Your task to perform on an android device: toggle location history Image 0: 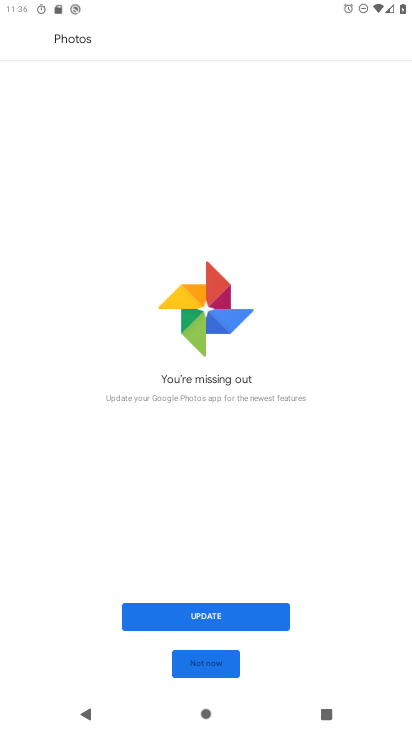
Step 0: press home button
Your task to perform on an android device: toggle location history Image 1: 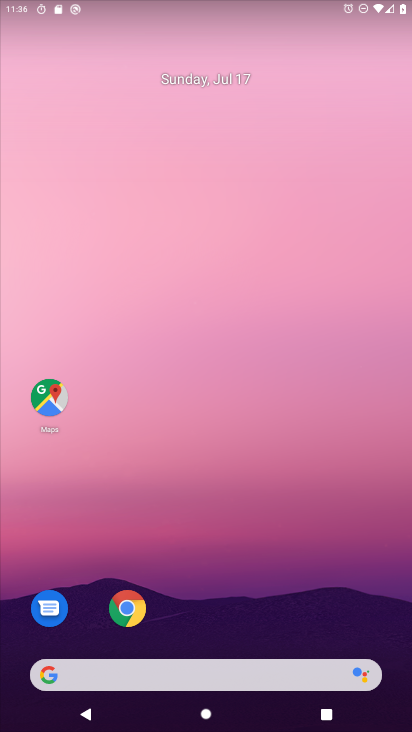
Step 1: drag from (248, 643) to (220, 50)
Your task to perform on an android device: toggle location history Image 2: 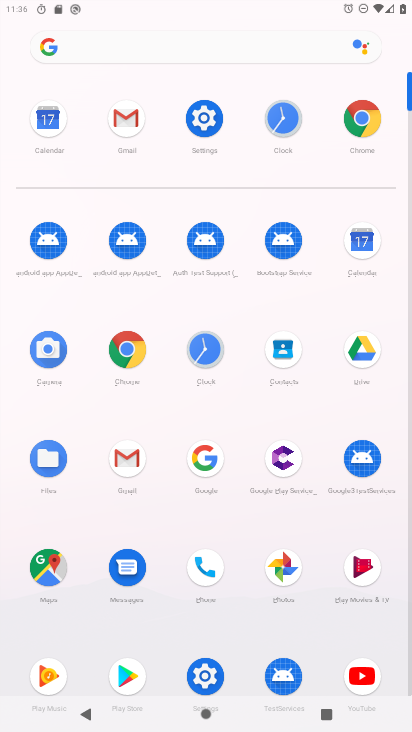
Step 2: click (204, 130)
Your task to perform on an android device: toggle location history Image 3: 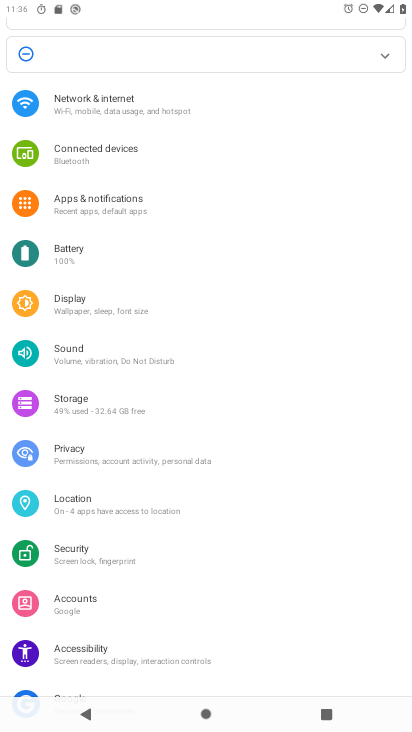
Step 3: click (129, 506)
Your task to perform on an android device: toggle location history Image 4: 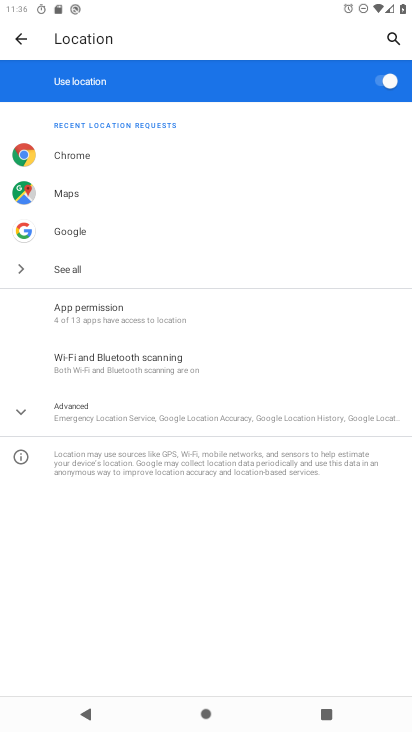
Step 4: click (85, 409)
Your task to perform on an android device: toggle location history Image 5: 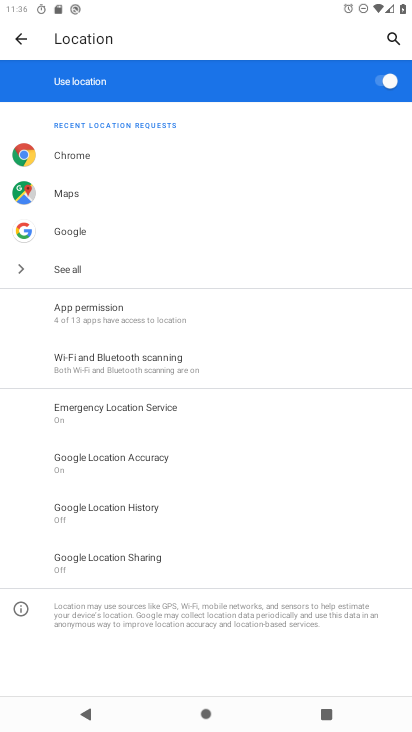
Step 5: click (107, 510)
Your task to perform on an android device: toggle location history Image 6: 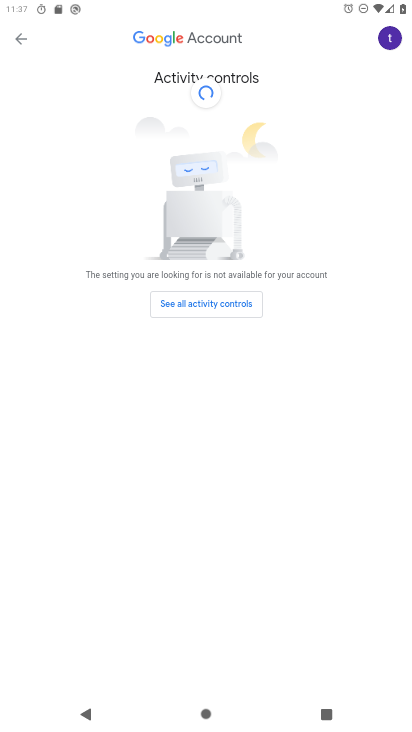
Step 6: click (193, 301)
Your task to perform on an android device: toggle location history Image 7: 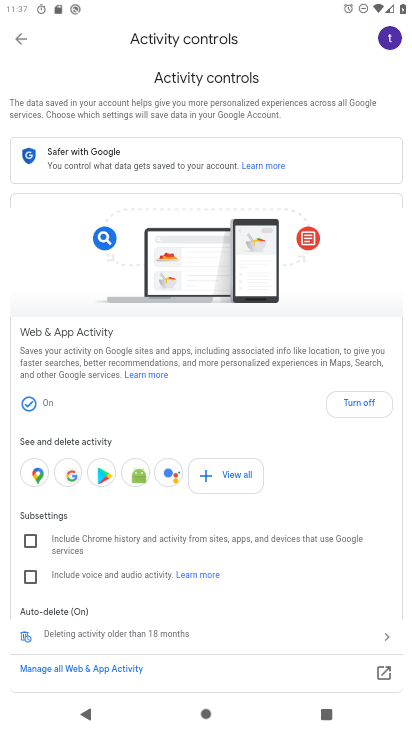
Step 7: click (361, 399)
Your task to perform on an android device: toggle location history Image 8: 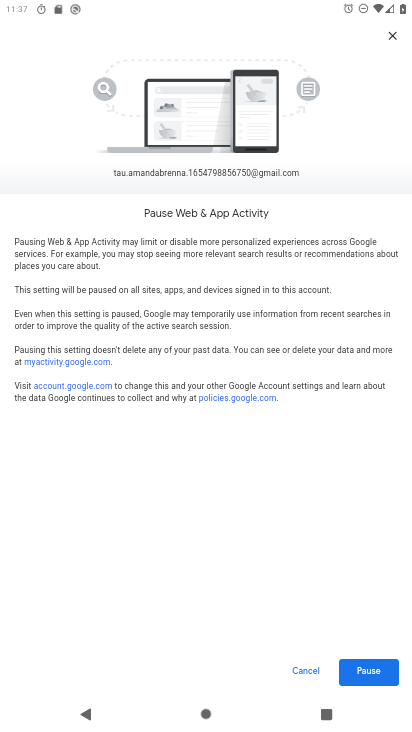
Step 8: click (365, 670)
Your task to perform on an android device: toggle location history Image 9: 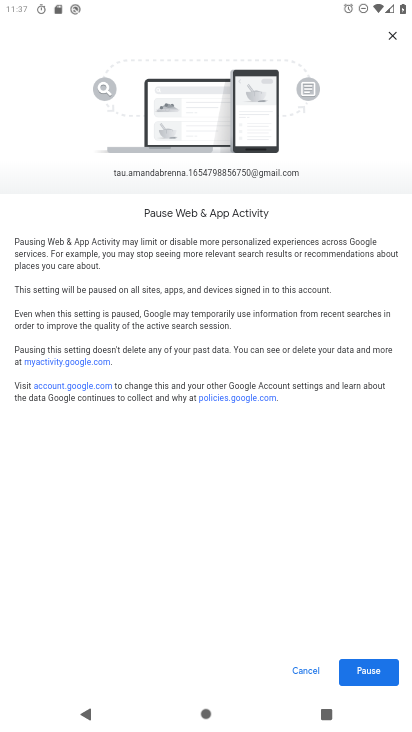
Step 9: click (365, 670)
Your task to perform on an android device: toggle location history Image 10: 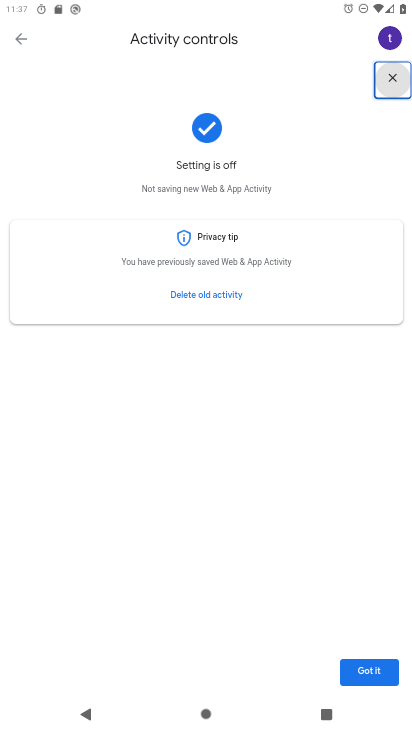
Step 10: task complete